Your task to perform on an android device: see sites visited before in the chrome app Image 0: 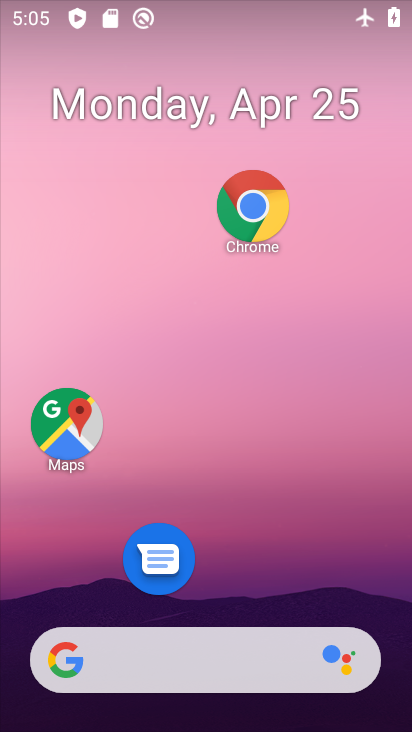
Step 0: click (255, 213)
Your task to perform on an android device: see sites visited before in the chrome app Image 1: 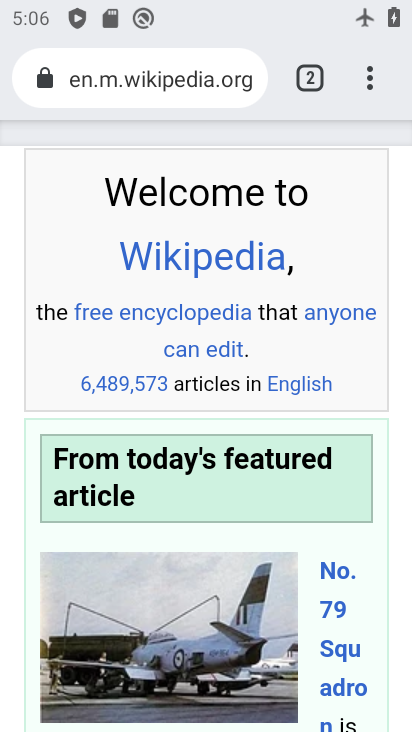
Step 1: click (368, 86)
Your task to perform on an android device: see sites visited before in the chrome app Image 2: 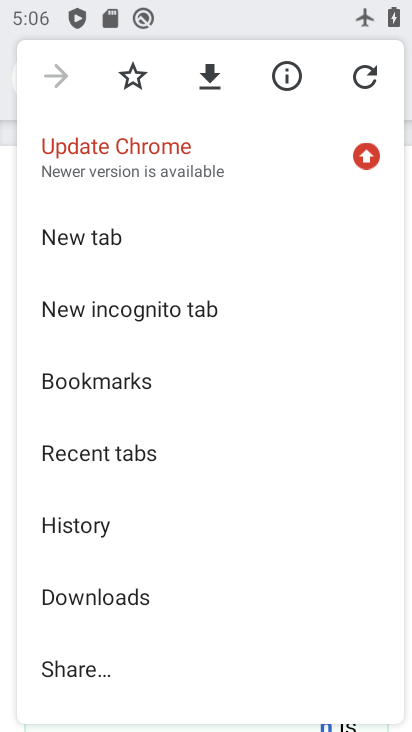
Step 2: click (91, 536)
Your task to perform on an android device: see sites visited before in the chrome app Image 3: 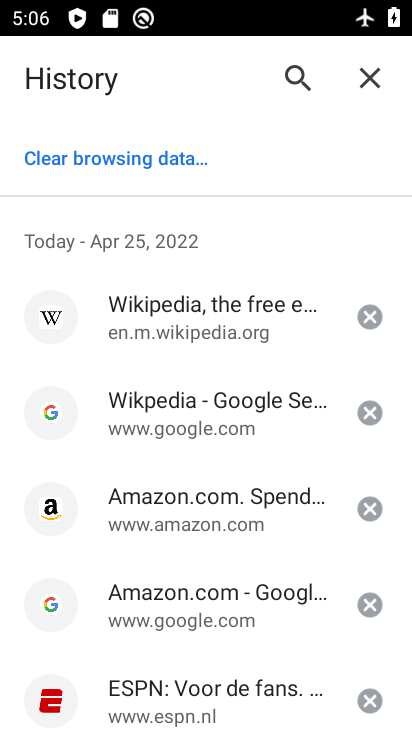
Step 3: task complete